Your task to perform on an android device: Open calendar and show me the first week of next month Image 0: 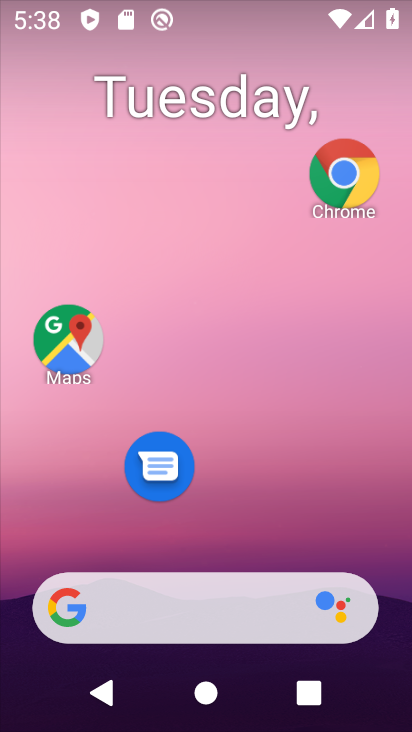
Step 0: drag from (276, 529) to (321, 113)
Your task to perform on an android device: Open calendar and show me the first week of next month Image 1: 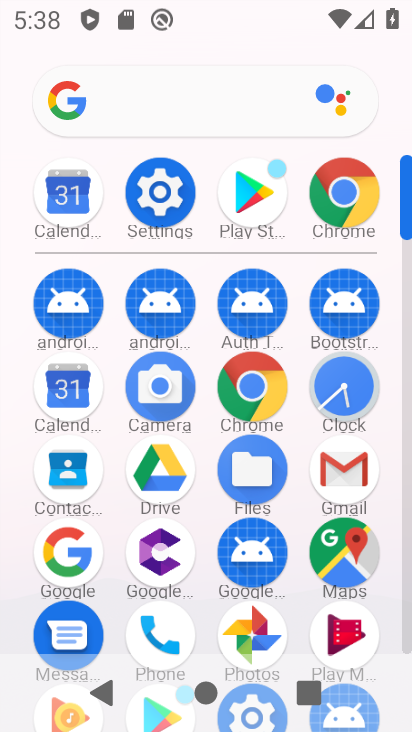
Step 1: click (84, 195)
Your task to perform on an android device: Open calendar and show me the first week of next month Image 2: 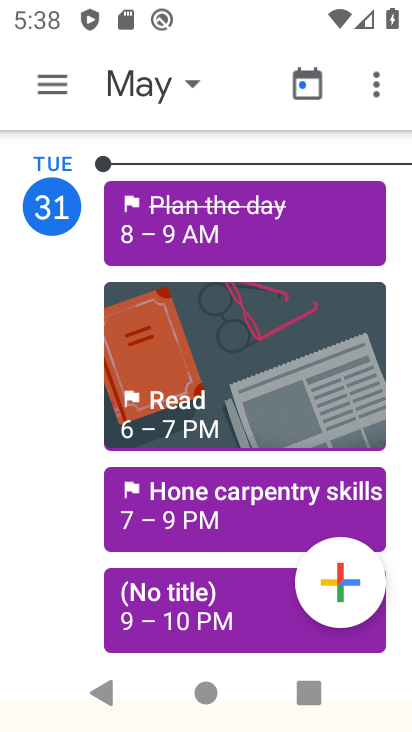
Step 2: click (194, 90)
Your task to perform on an android device: Open calendar and show me the first week of next month Image 3: 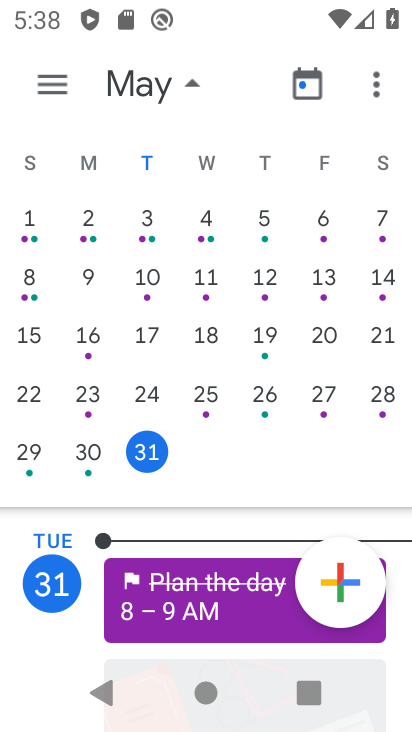
Step 3: task complete